Your task to perform on an android device: View the shopping cart on ebay. Add usb-c to usb-b to the cart on ebay, then select checkout. Image 0: 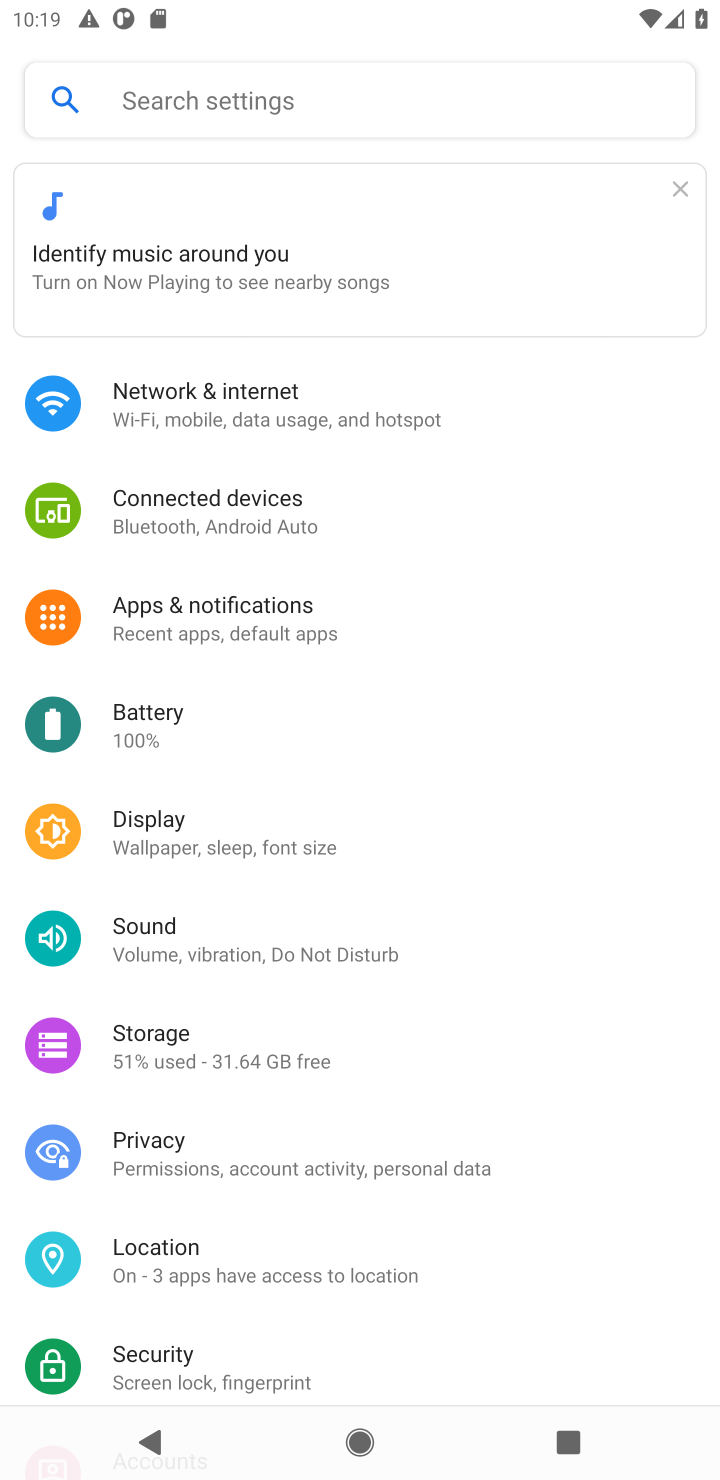
Step 0: task complete